Your task to perform on an android device: toggle show notifications on the lock screen Image 0: 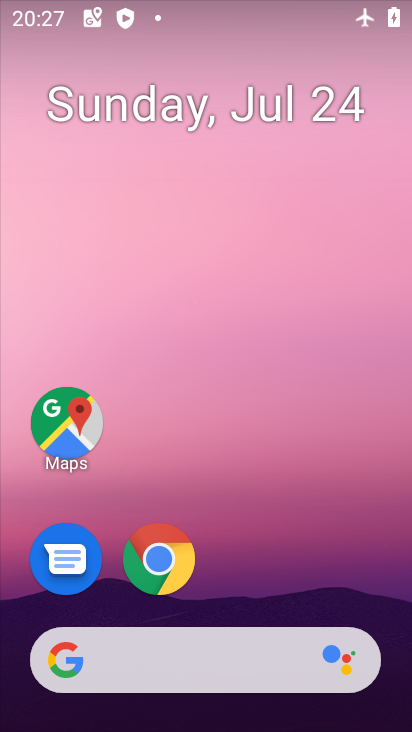
Step 0: press home button
Your task to perform on an android device: toggle show notifications on the lock screen Image 1: 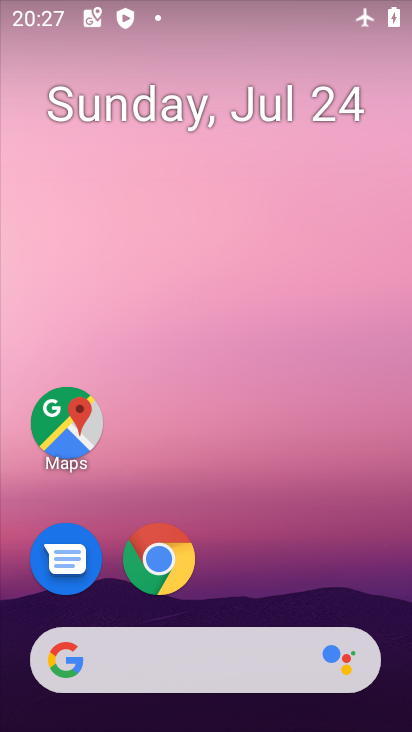
Step 1: drag from (342, 515) to (353, 64)
Your task to perform on an android device: toggle show notifications on the lock screen Image 2: 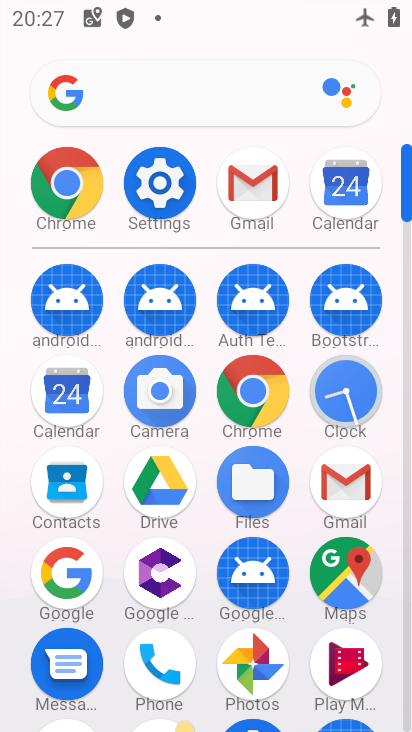
Step 2: click (176, 197)
Your task to perform on an android device: toggle show notifications on the lock screen Image 3: 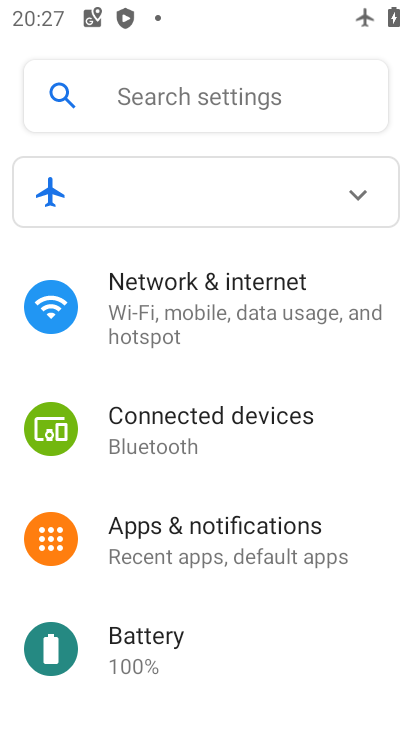
Step 3: drag from (390, 647) to (391, 549)
Your task to perform on an android device: toggle show notifications on the lock screen Image 4: 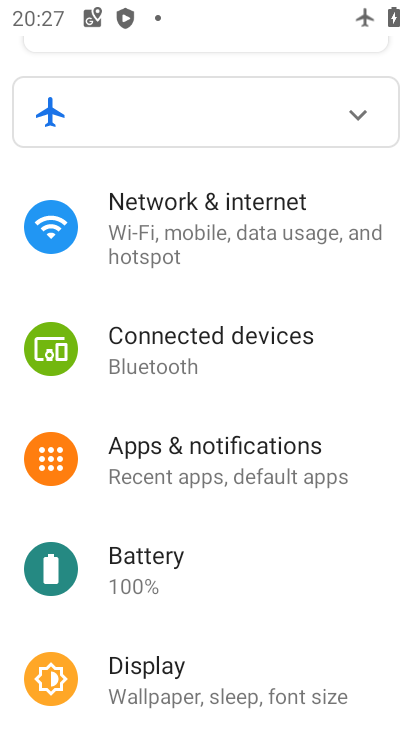
Step 4: drag from (367, 653) to (364, 528)
Your task to perform on an android device: toggle show notifications on the lock screen Image 5: 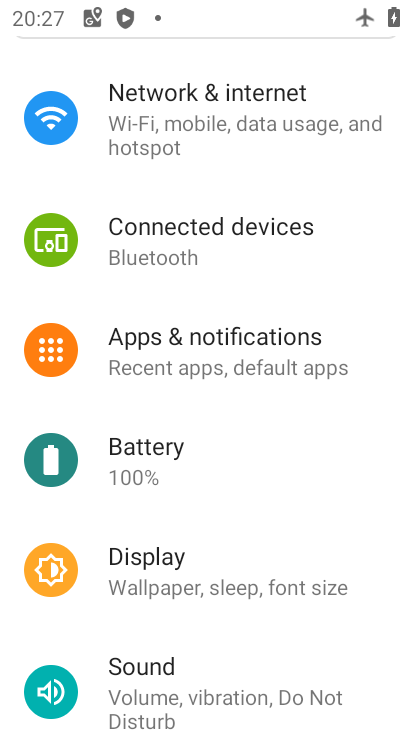
Step 5: drag from (365, 526) to (353, 238)
Your task to perform on an android device: toggle show notifications on the lock screen Image 6: 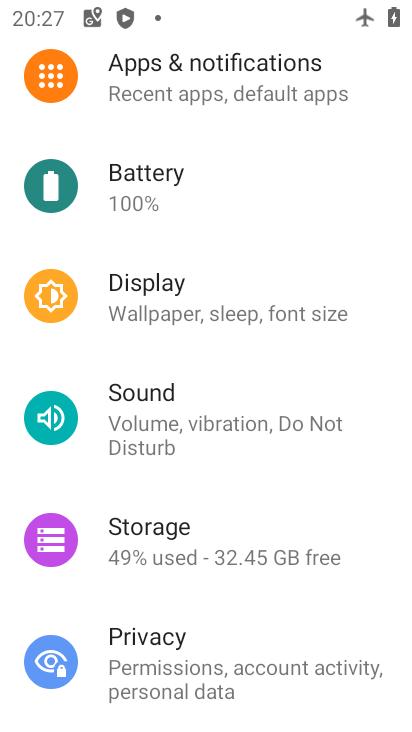
Step 6: click (293, 84)
Your task to perform on an android device: toggle show notifications on the lock screen Image 7: 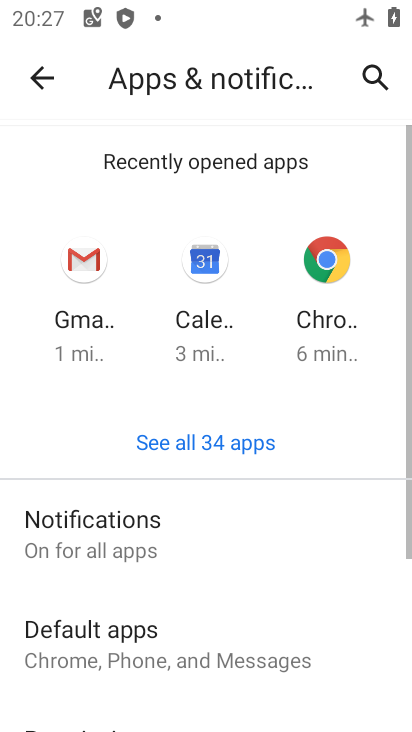
Step 7: drag from (330, 515) to (337, 357)
Your task to perform on an android device: toggle show notifications on the lock screen Image 8: 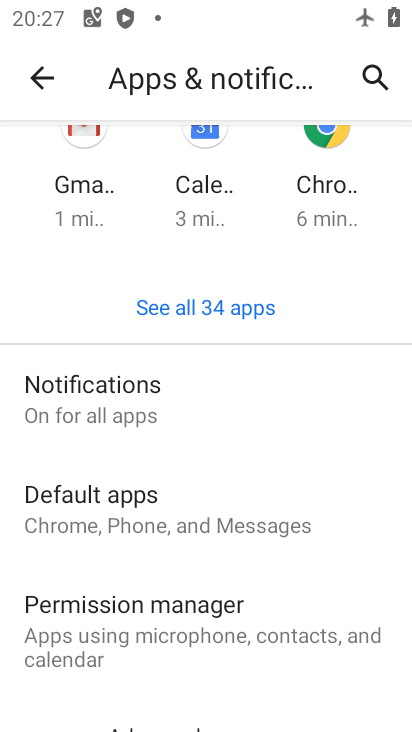
Step 8: drag from (359, 497) to (347, 330)
Your task to perform on an android device: toggle show notifications on the lock screen Image 9: 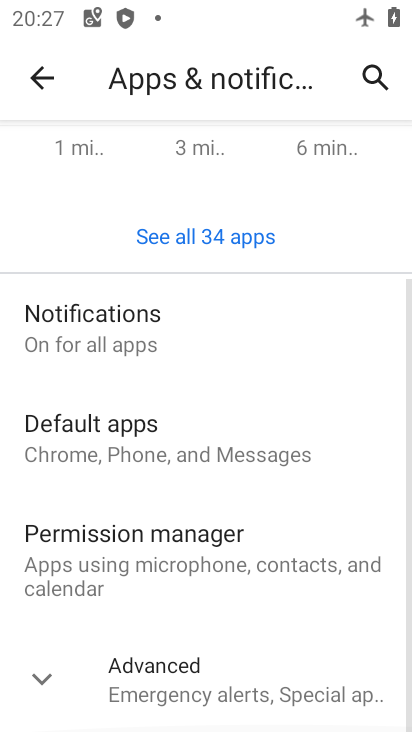
Step 9: click (298, 324)
Your task to perform on an android device: toggle show notifications on the lock screen Image 10: 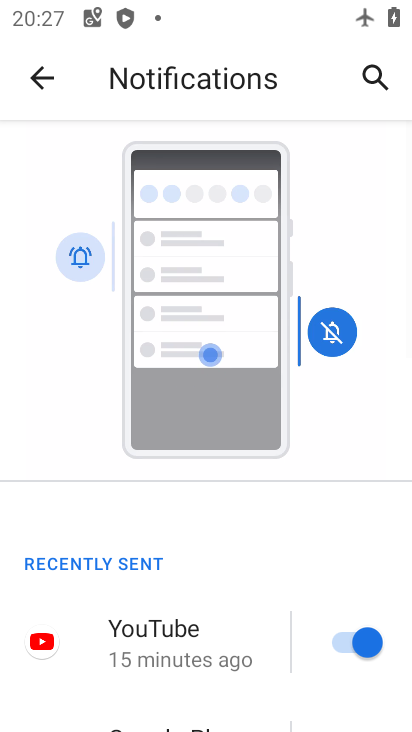
Step 10: drag from (302, 491) to (306, 391)
Your task to perform on an android device: toggle show notifications on the lock screen Image 11: 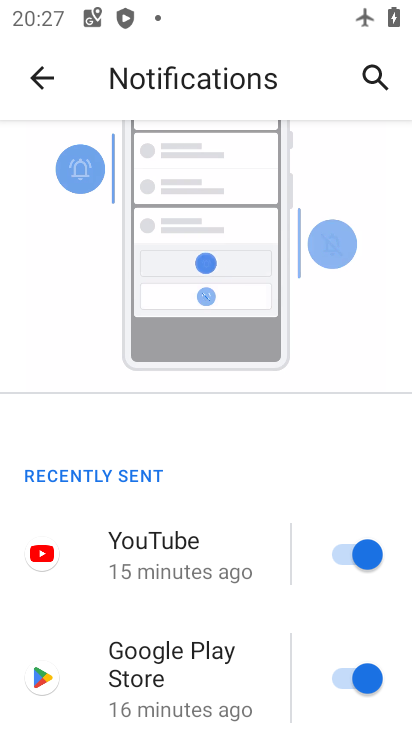
Step 11: drag from (280, 519) to (287, 424)
Your task to perform on an android device: toggle show notifications on the lock screen Image 12: 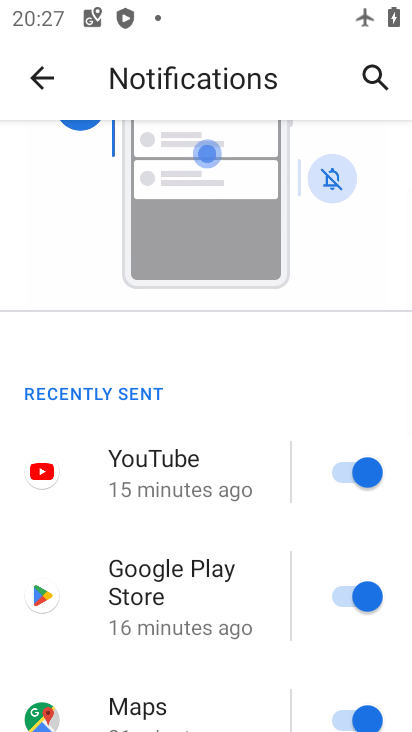
Step 12: drag from (266, 534) to (256, 416)
Your task to perform on an android device: toggle show notifications on the lock screen Image 13: 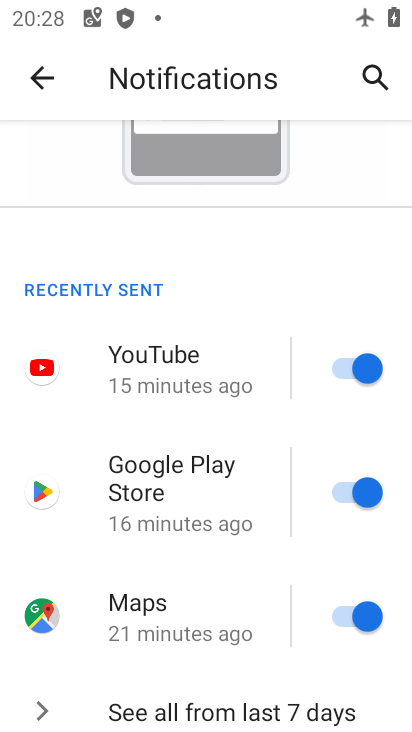
Step 13: drag from (252, 578) to (259, 469)
Your task to perform on an android device: toggle show notifications on the lock screen Image 14: 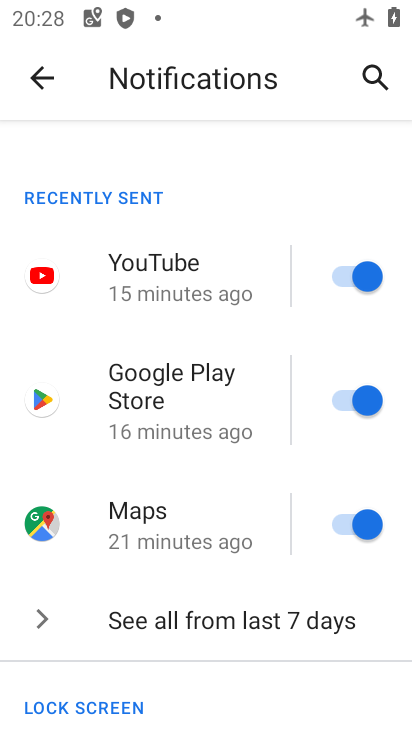
Step 14: drag from (259, 561) to (267, 378)
Your task to perform on an android device: toggle show notifications on the lock screen Image 15: 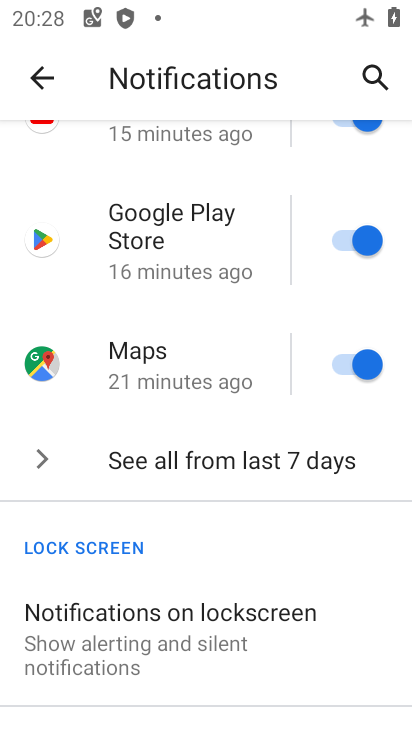
Step 15: drag from (278, 533) to (275, 427)
Your task to perform on an android device: toggle show notifications on the lock screen Image 16: 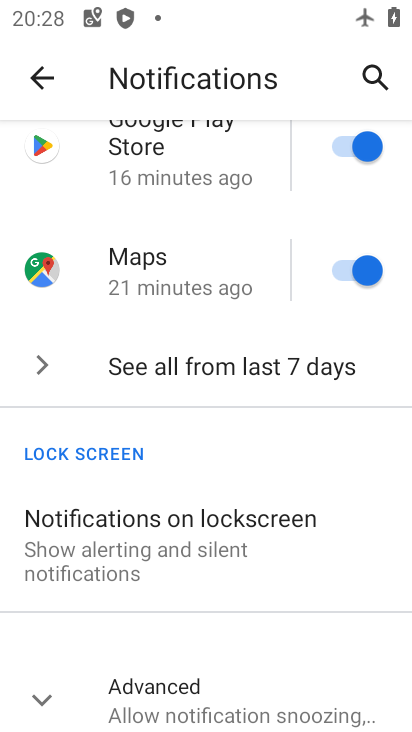
Step 16: drag from (289, 597) to (297, 477)
Your task to perform on an android device: toggle show notifications on the lock screen Image 17: 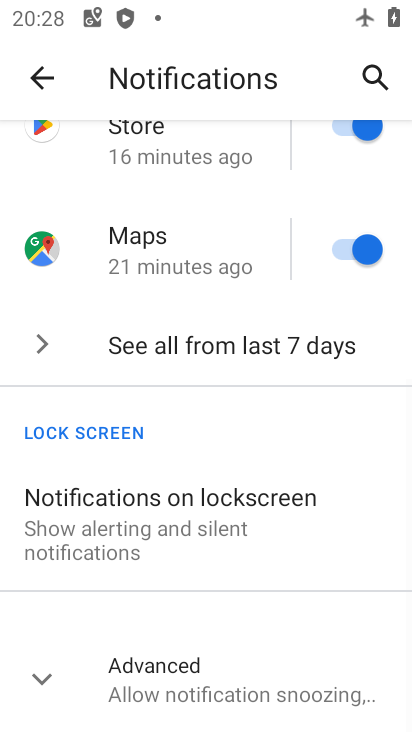
Step 17: click (279, 679)
Your task to perform on an android device: toggle show notifications on the lock screen Image 18: 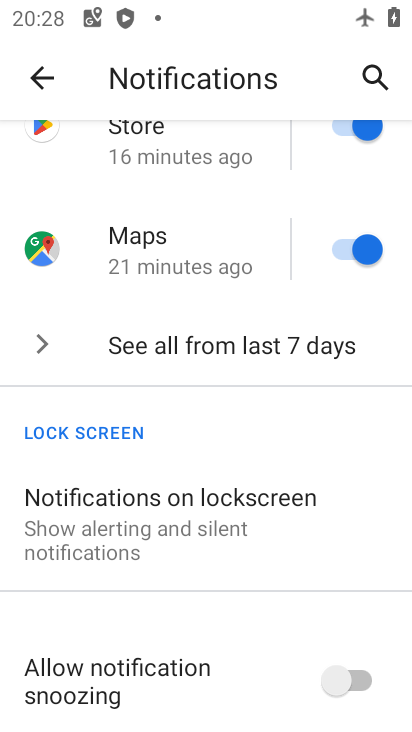
Step 18: click (281, 506)
Your task to perform on an android device: toggle show notifications on the lock screen Image 19: 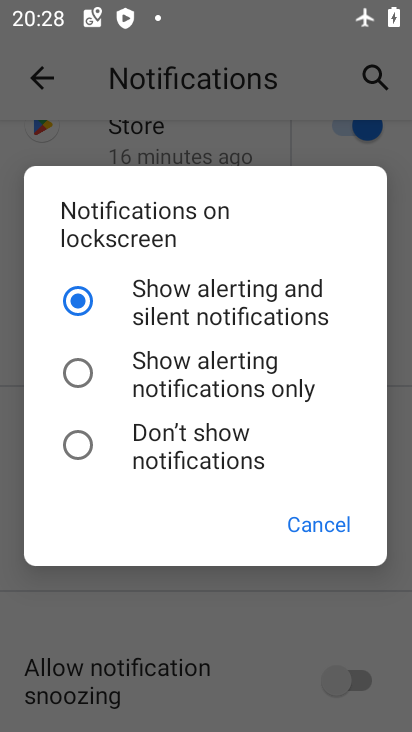
Step 19: click (252, 391)
Your task to perform on an android device: toggle show notifications on the lock screen Image 20: 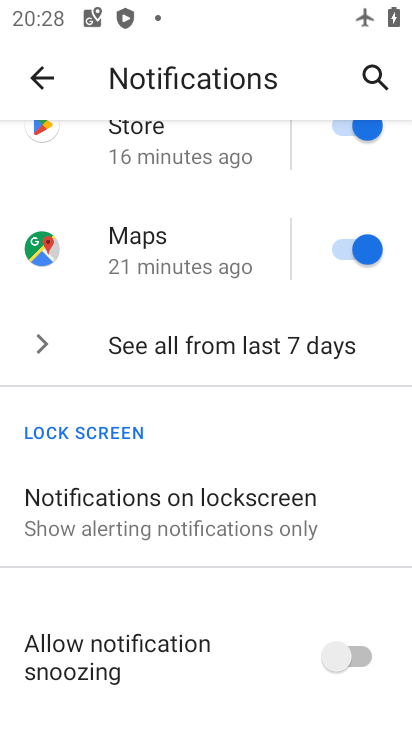
Step 20: task complete